Your task to perform on an android device: turn on translation in the chrome app Image 0: 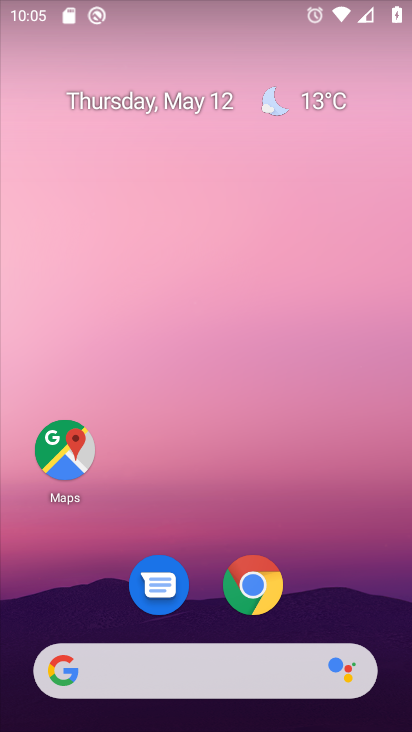
Step 0: click (252, 565)
Your task to perform on an android device: turn on translation in the chrome app Image 1: 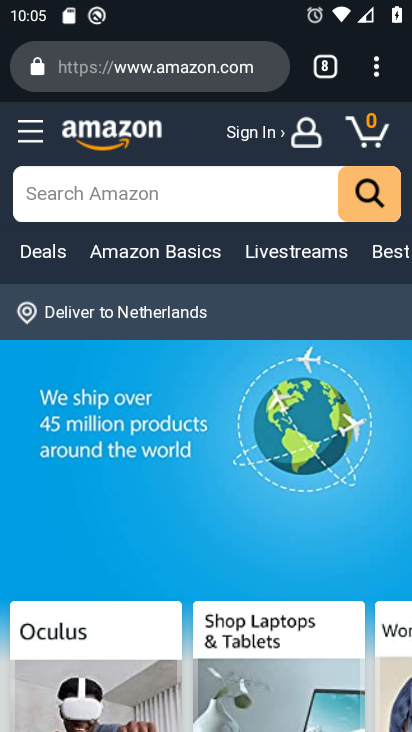
Step 1: click (375, 75)
Your task to perform on an android device: turn on translation in the chrome app Image 2: 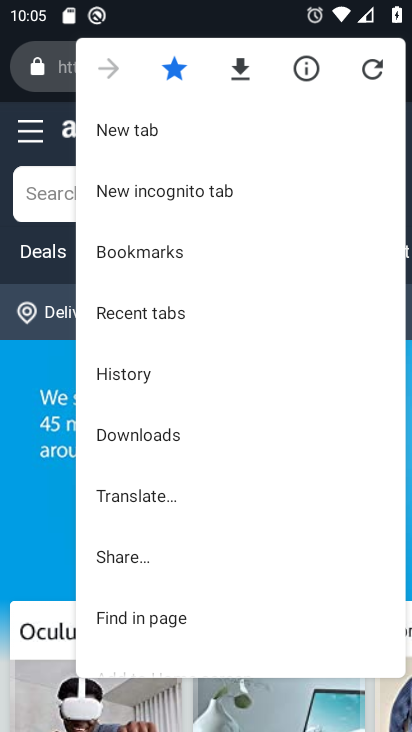
Step 2: drag from (252, 554) to (266, 219)
Your task to perform on an android device: turn on translation in the chrome app Image 3: 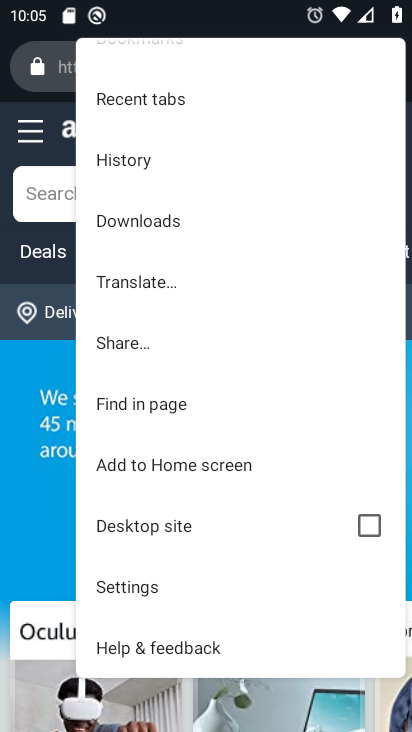
Step 3: click (151, 589)
Your task to perform on an android device: turn on translation in the chrome app Image 4: 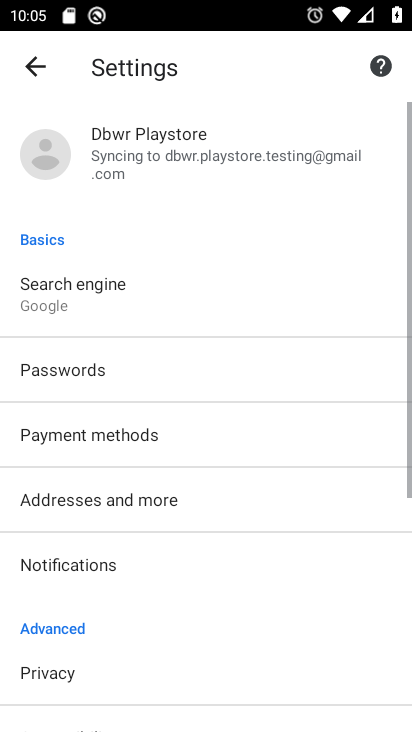
Step 4: drag from (210, 557) to (197, 156)
Your task to perform on an android device: turn on translation in the chrome app Image 5: 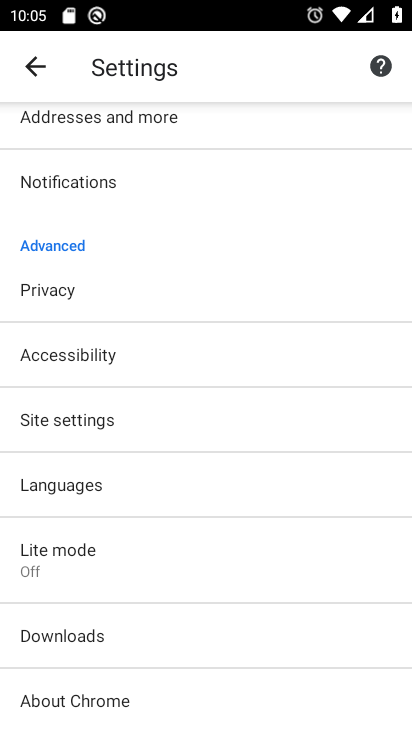
Step 5: click (171, 476)
Your task to perform on an android device: turn on translation in the chrome app Image 6: 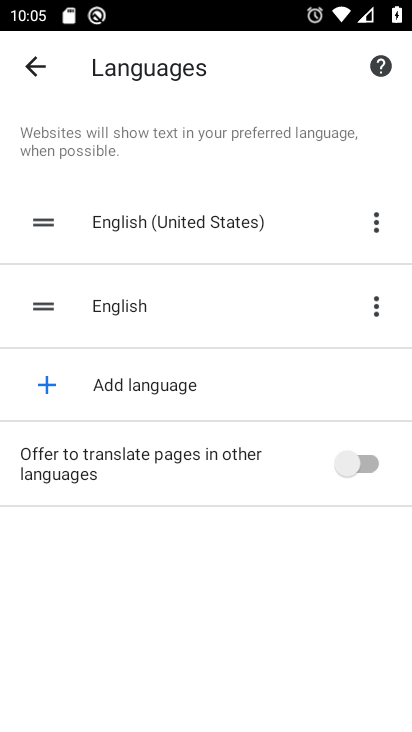
Step 6: click (360, 457)
Your task to perform on an android device: turn on translation in the chrome app Image 7: 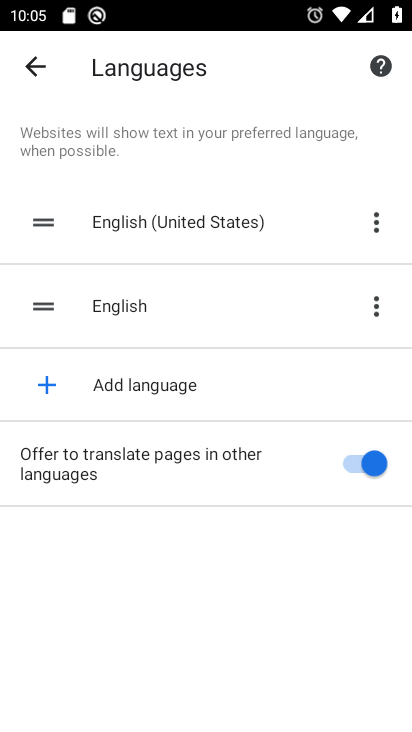
Step 7: task complete